Your task to perform on an android device: Open battery settings Image 0: 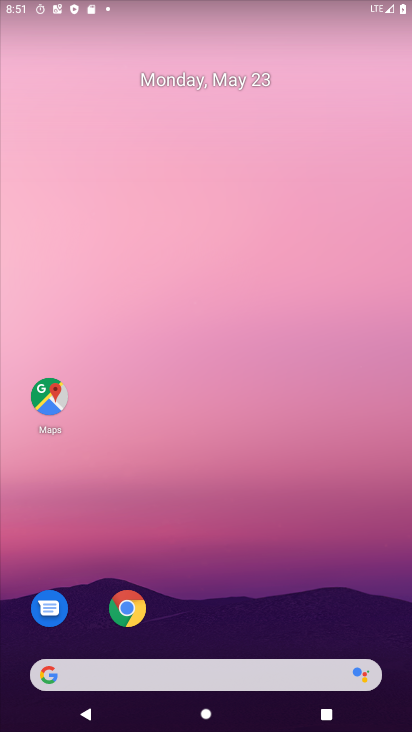
Step 0: drag from (199, 670) to (211, 129)
Your task to perform on an android device: Open battery settings Image 1: 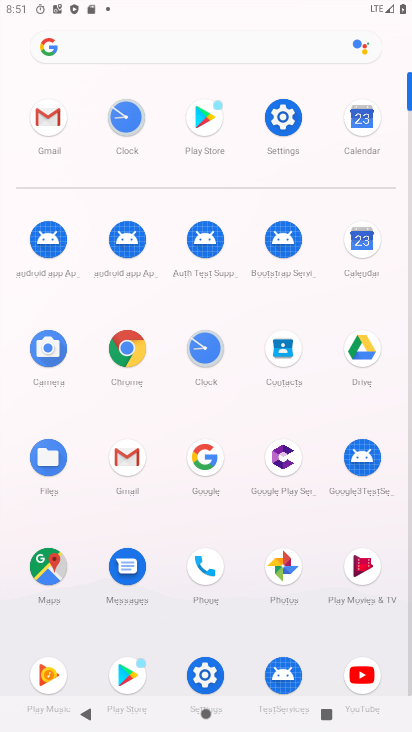
Step 1: click (296, 125)
Your task to perform on an android device: Open battery settings Image 2: 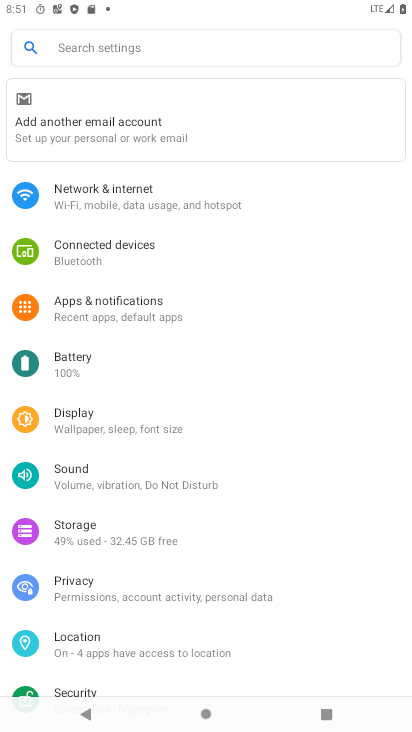
Step 2: click (100, 360)
Your task to perform on an android device: Open battery settings Image 3: 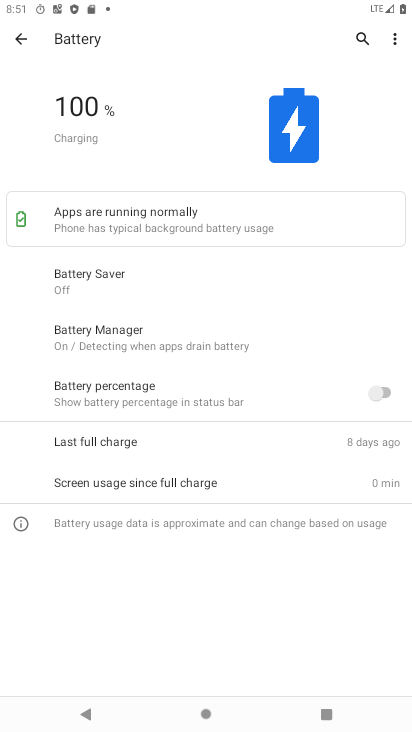
Step 3: task complete